Your task to perform on an android device: Play the new Taylor Swift video on YouTube Image 0: 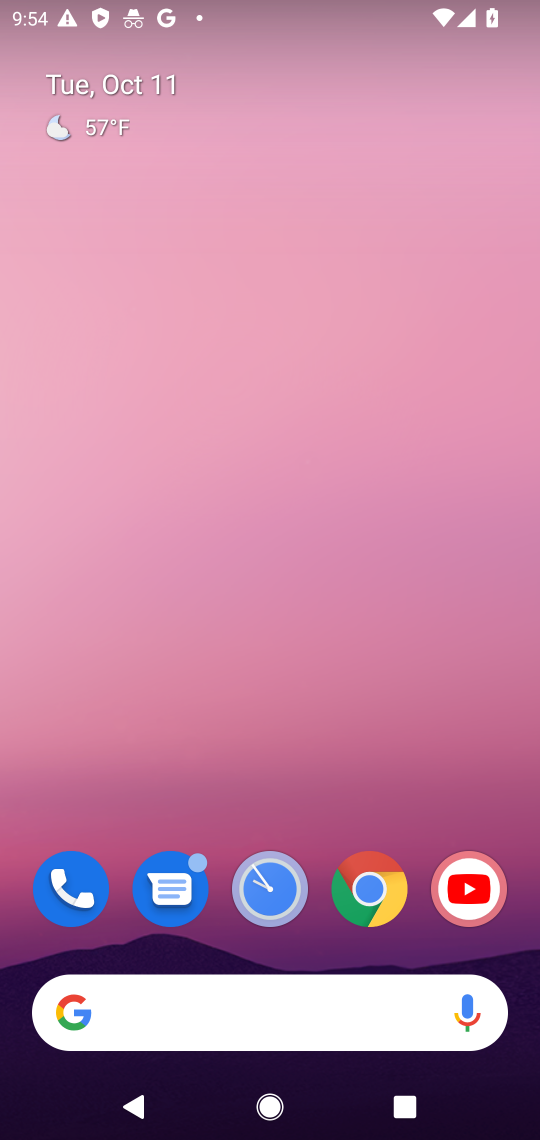
Step 0: click (481, 892)
Your task to perform on an android device: Play the new Taylor Swift video on YouTube Image 1: 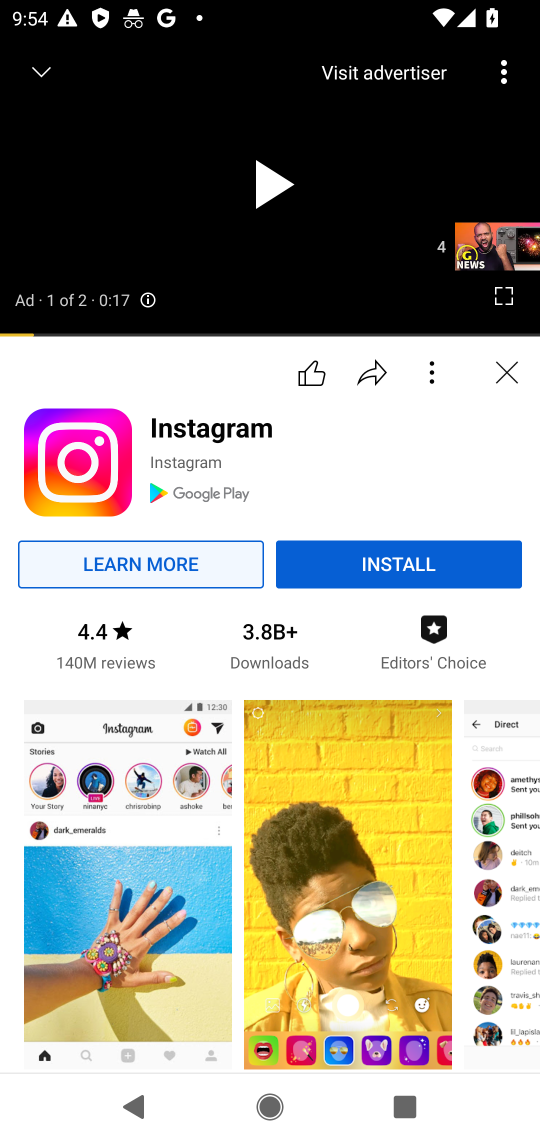
Step 1: click (31, 77)
Your task to perform on an android device: Play the new Taylor Swift video on YouTube Image 2: 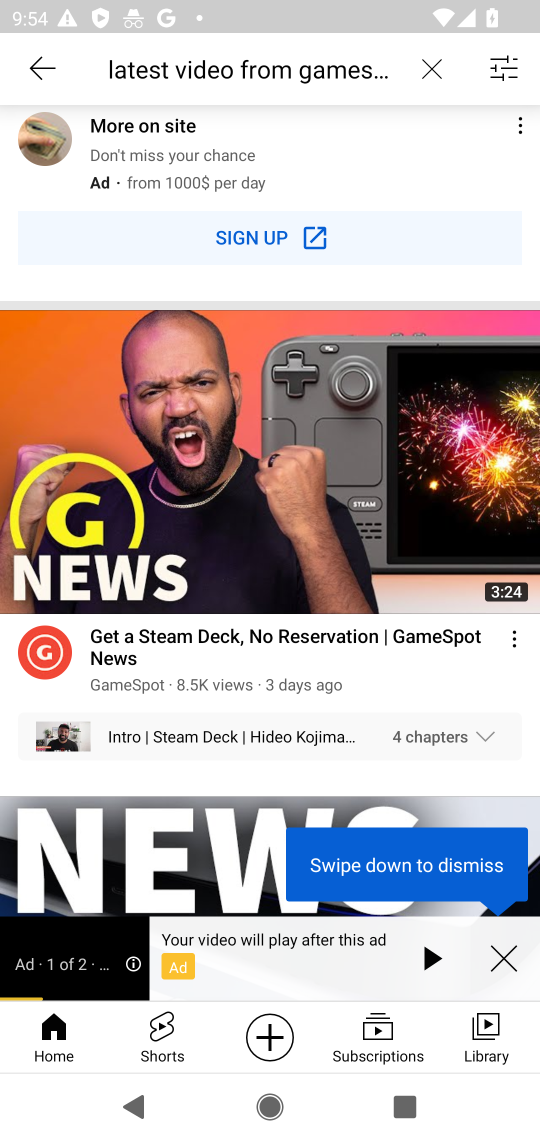
Step 2: click (434, 64)
Your task to perform on an android device: Play the new Taylor Swift video on YouTube Image 3: 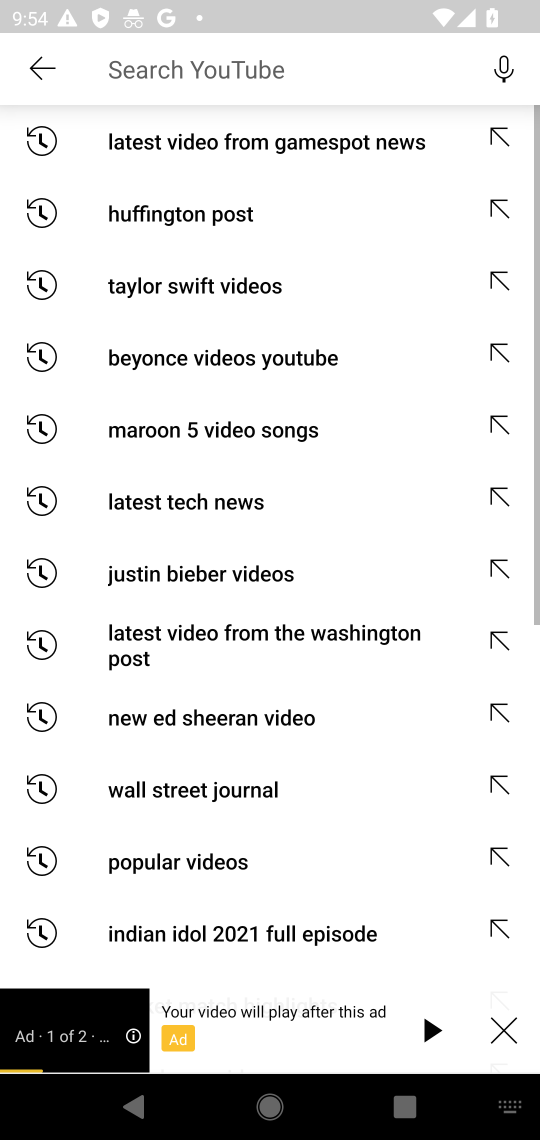
Step 3: click (273, 76)
Your task to perform on an android device: Play the new Taylor Swift video on YouTube Image 4: 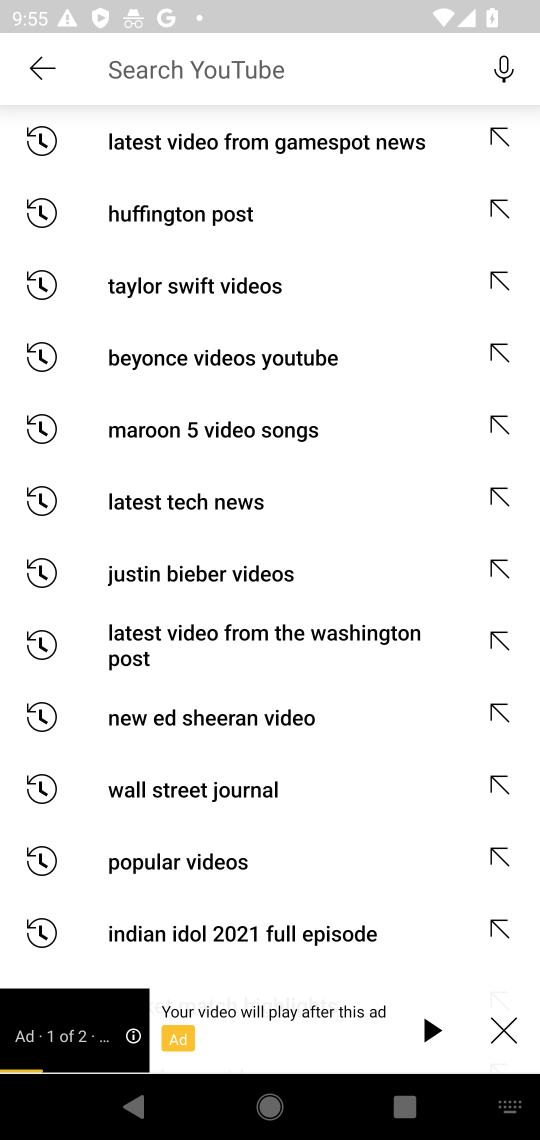
Step 4: type "new Taylor Swift video"
Your task to perform on an android device: Play the new Taylor Swift video on YouTube Image 5: 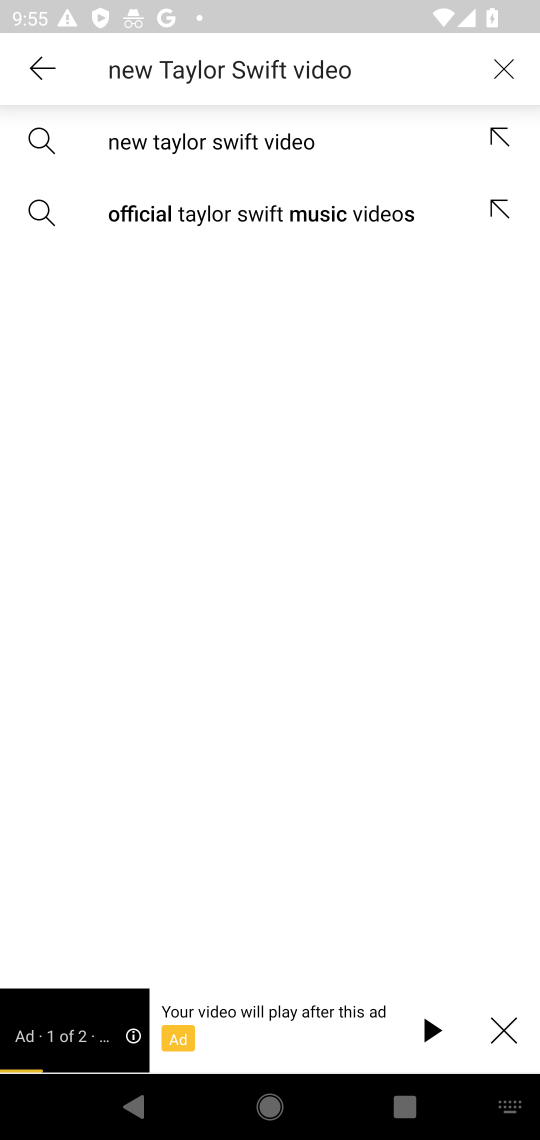
Step 5: click (223, 138)
Your task to perform on an android device: Play the new Taylor Swift video on YouTube Image 6: 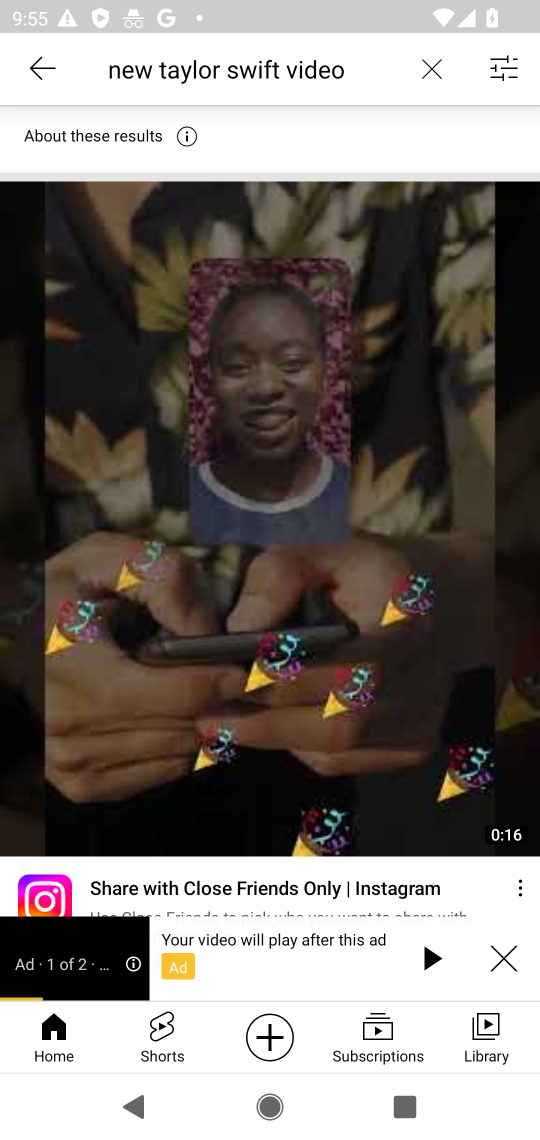
Step 6: drag from (273, 786) to (383, 216)
Your task to perform on an android device: Play the new Taylor Swift video on YouTube Image 7: 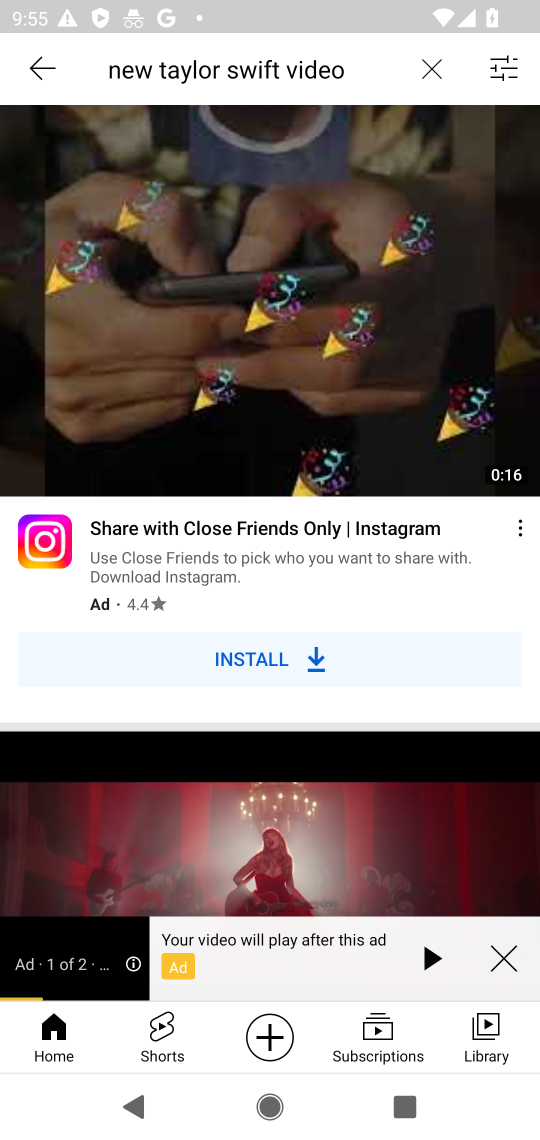
Step 7: drag from (280, 635) to (345, 255)
Your task to perform on an android device: Play the new Taylor Swift video on YouTube Image 8: 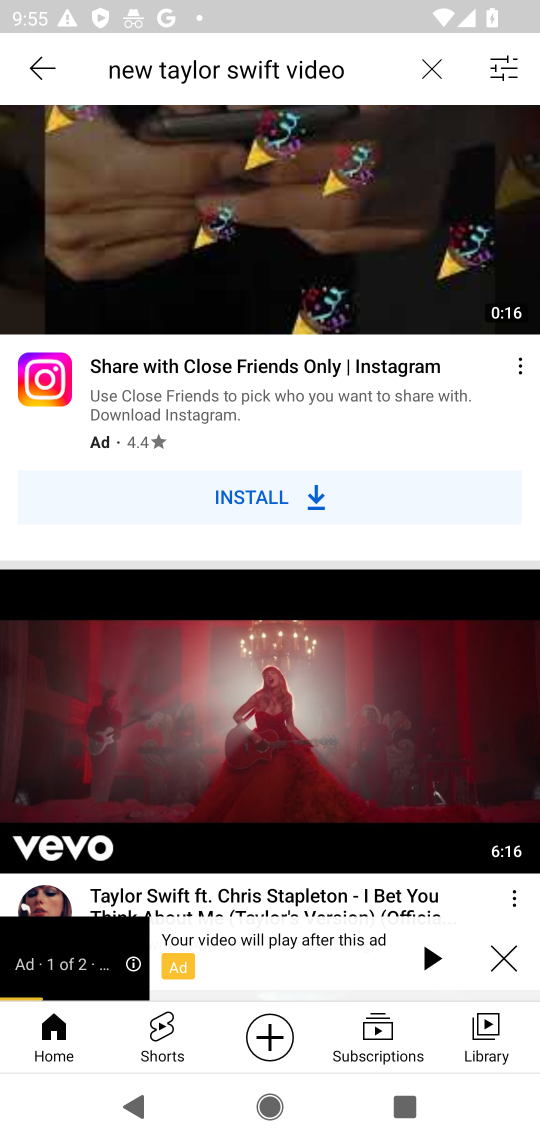
Step 8: click (219, 760)
Your task to perform on an android device: Play the new Taylor Swift video on YouTube Image 9: 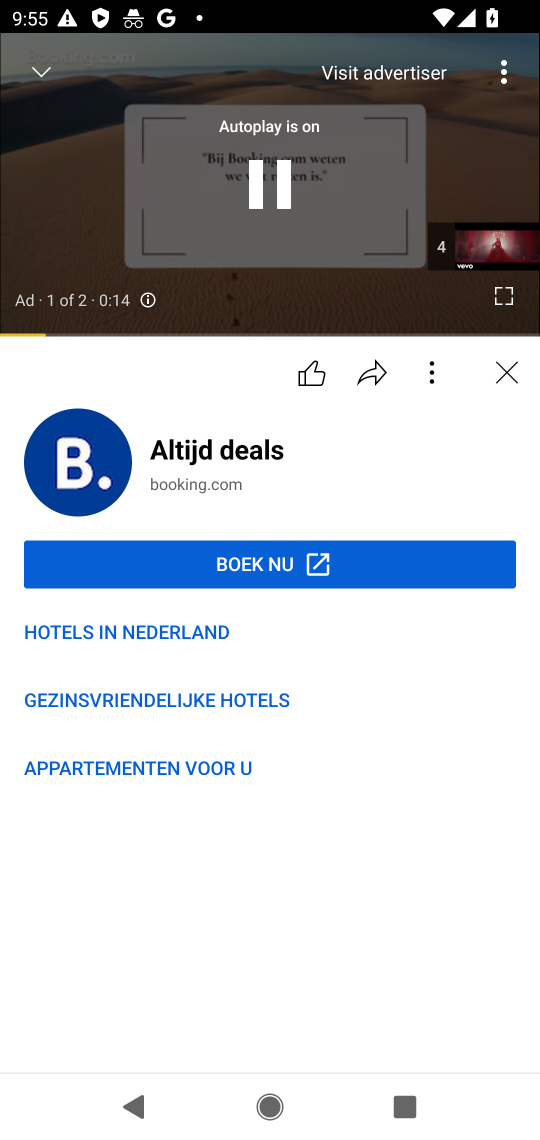
Step 9: click (256, 181)
Your task to perform on an android device: Play the new Taylor Swift video on YouTube Image 10: 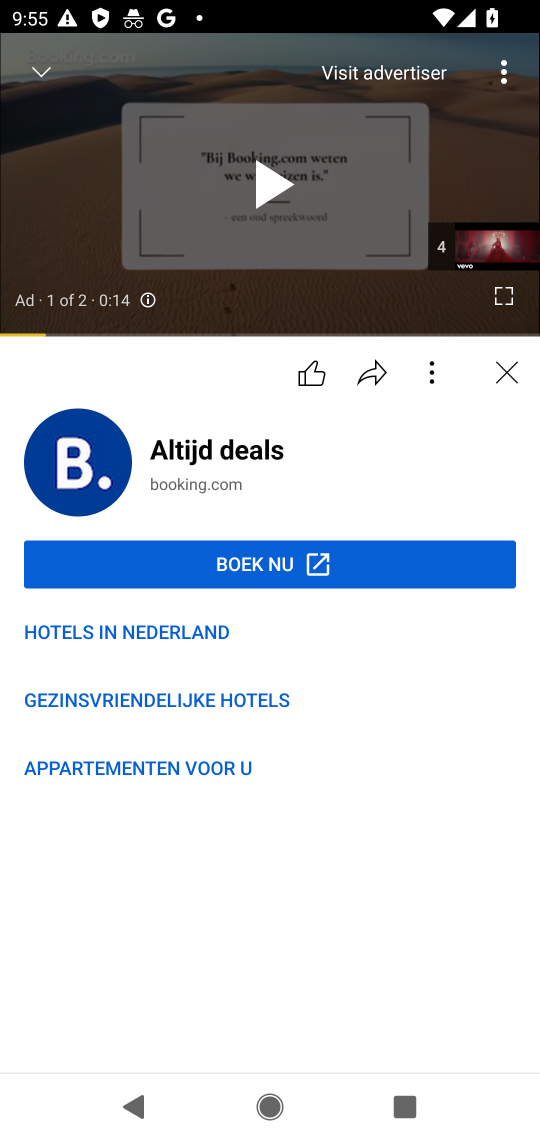
Step 10: task complete